Your task to perform on an android device: open wifi settings Image 0: 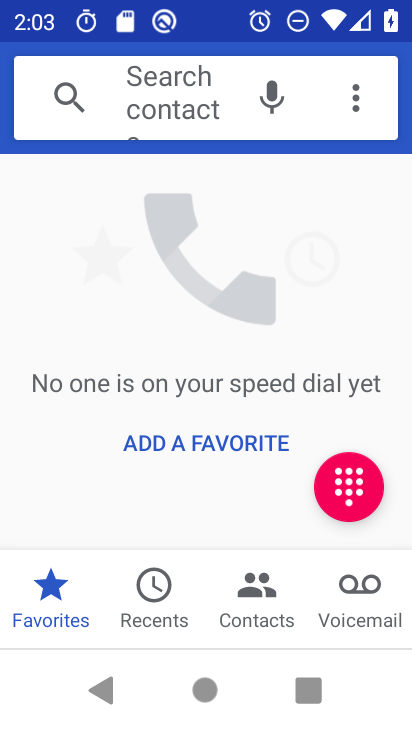
Step 0: press home button
Your task to perform on an android device: open wifi settings Image 1: 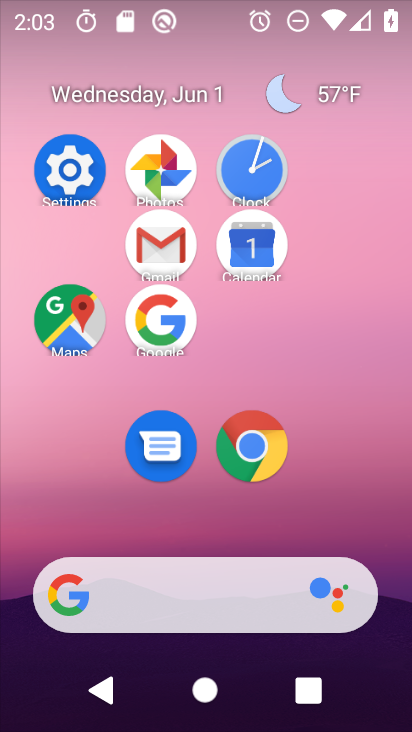
Step 1: click (63, 179)
Your task to perform on an android device: open wifi settings Image 2: 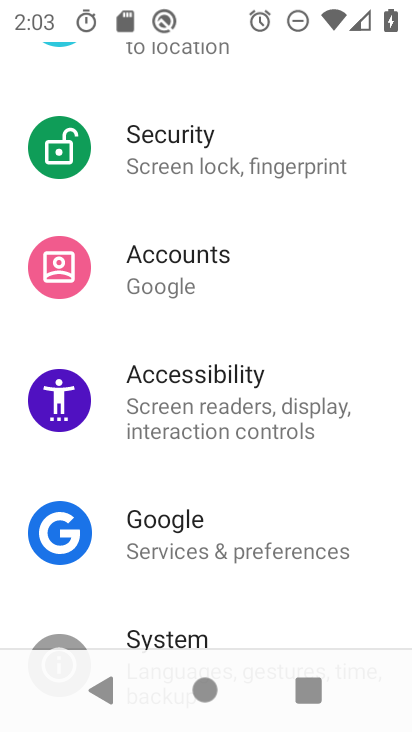
Step 2: drag from (284, 80) to (288, 643)
Your task to perform on an android device: open wifi settings Image 3: 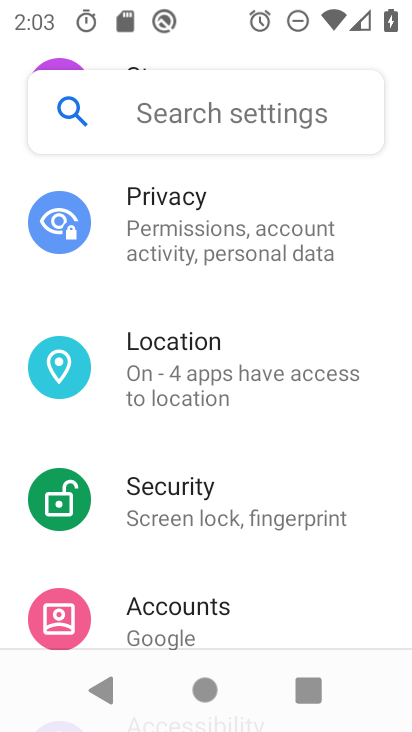
Step 3: drag from (240, 183) to (289, 703)
Your task to perform on an android device: open wifi settings Image 4: 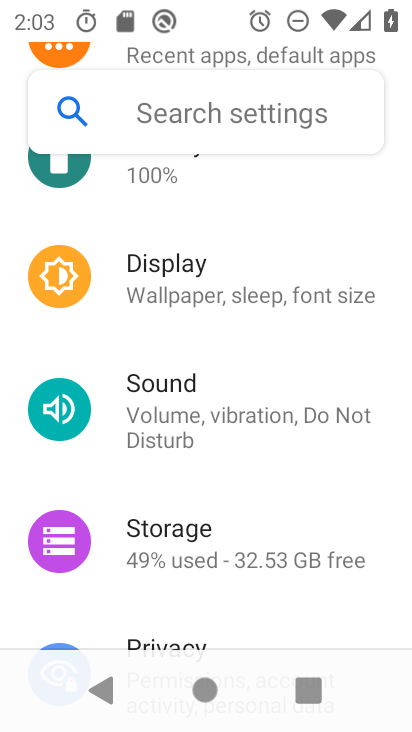
Step 4: drag from (323, 173) to (284, 716)
Your task to perform on an android device: open wifi settings Image 5: 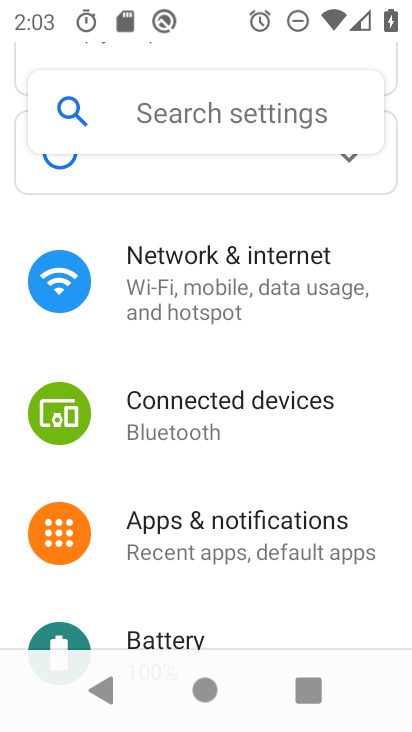
Step 5: click (257, 270)
Your task to perform on an android device: open wifi settings Image 6: 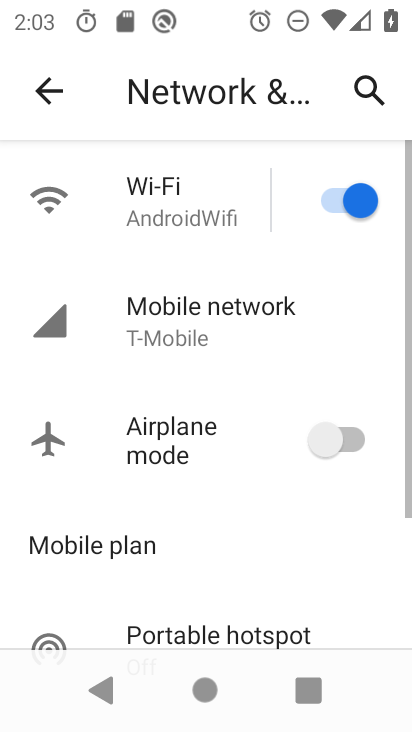
Step 6: click (164, 222)
Your task to perform on an android device: open wifi settings Image 7: 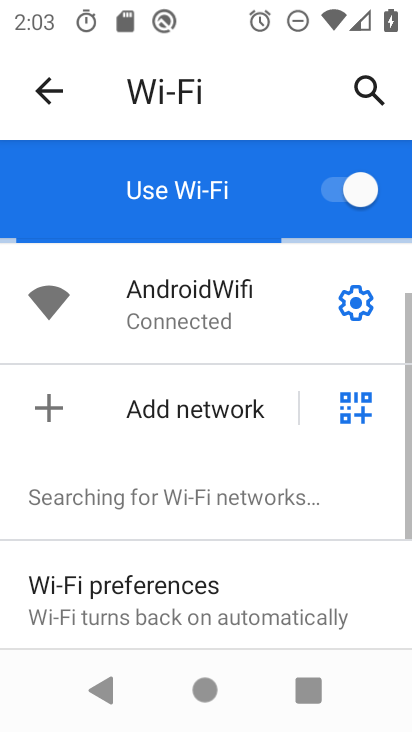
Step 7: click (365, 298)
Your task to perform on an android device: open wifi settings Image 8: 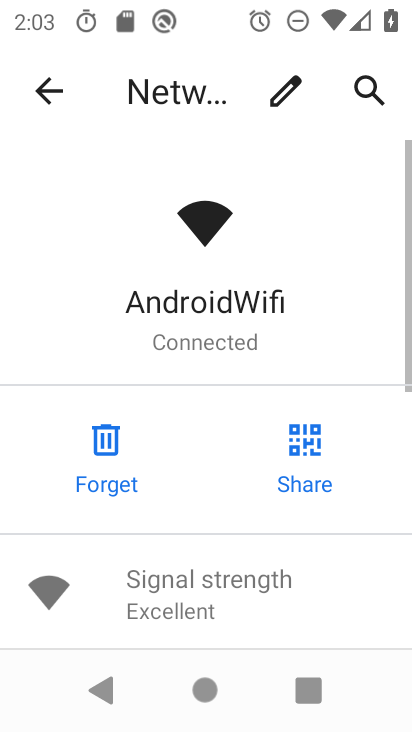
Step 8: task complete